Your task to perform on an android device: turn off improve location accuracy Image 0: 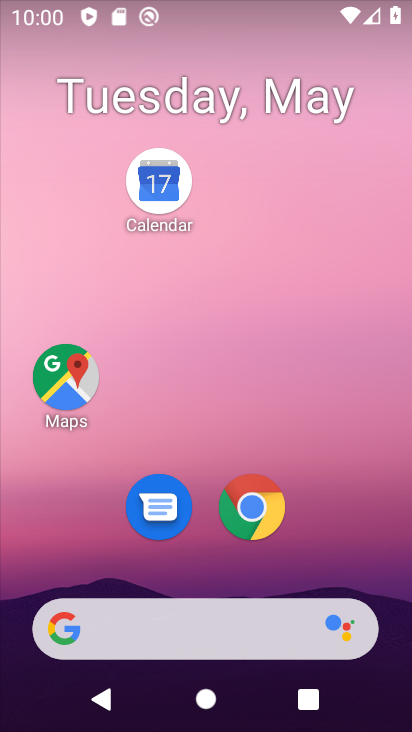
Step 0: drag from (329, 554) to (333, 92)
Your task to perform on an android device: turn off improve location accuracy Image 1: 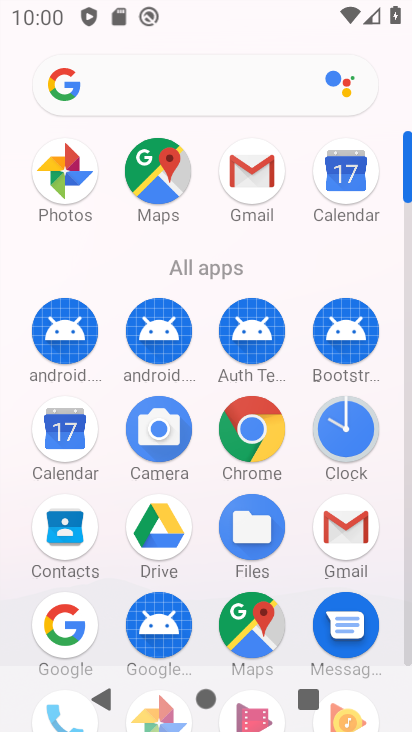
Step 1: drag from (184, 559) to (214, 184)
Your task to perform on an android device: turn off improve location accuracy Image 2: 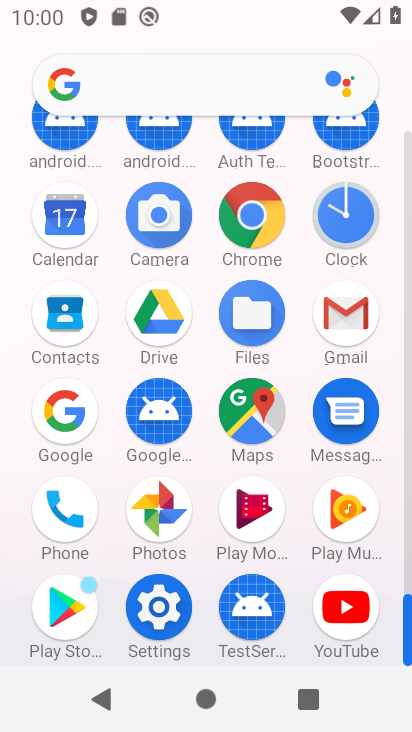
Step 2: drag from (153, 600) to (70, 217)
Your task to perform on an android device: turn off improve location accuracy Image 3: 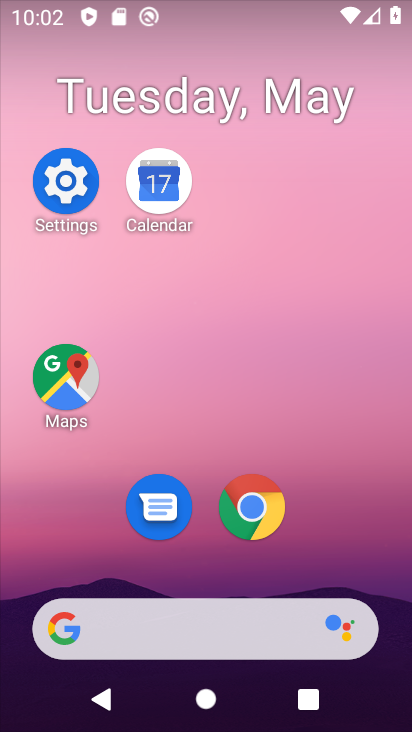
Step 3: click (76, 220)
Your task to perform on an android device: turn off improve location accuracy Image 4: 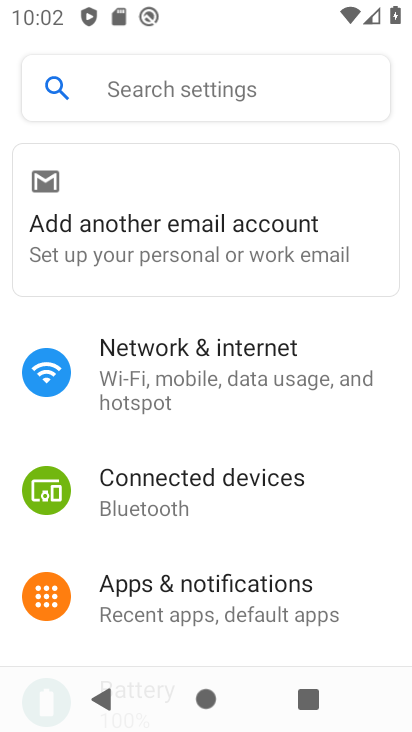
Step 4: drag from (306, 600) to (315, 166)
Your task to perform on an android device: turn off improve location accuracy Image 5: 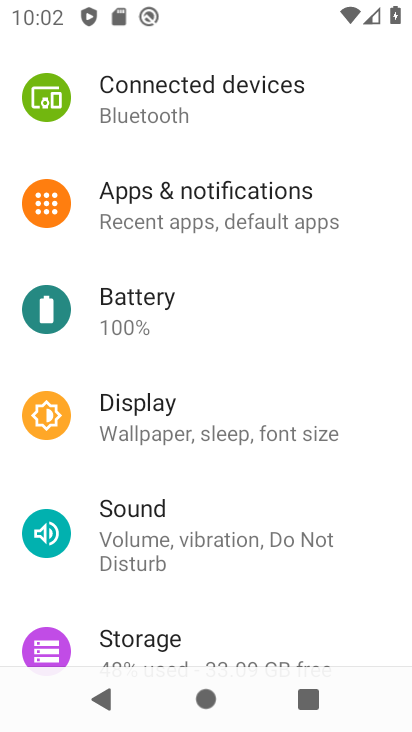
Step 5: drag from (236, 553) to (312, 175)
Your task to perform on an android device: turn off improve location accuracy Image 6: 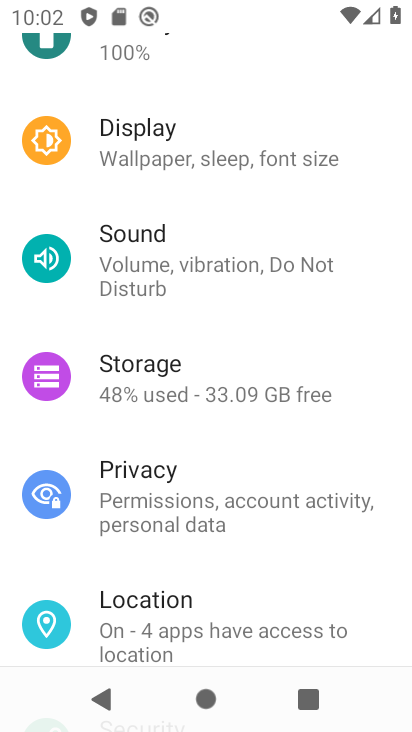
Step 6: drag from (262, 605) to (297, 234)
Your task to perform on an android device: turn off improve location accuracy Image 7: 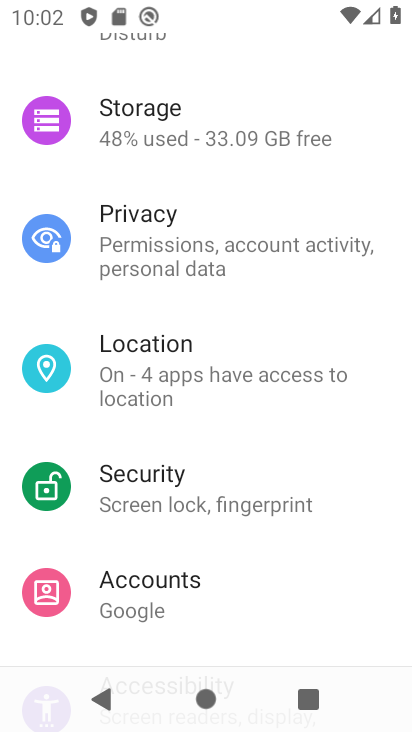
Step 7: click (252, 367)
Your task to perform on an android device: turn off improve location accuracy Image 8: 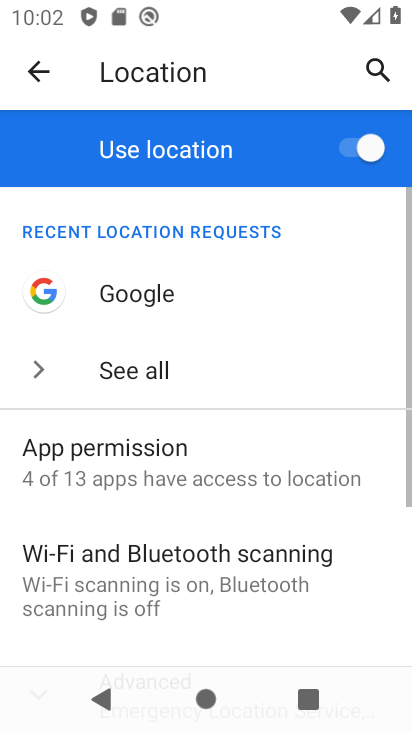
Step 8: drag from (243, 554) to (280, 226)
Your task to perform on an android device: turn off improve location accuracy Image 9: 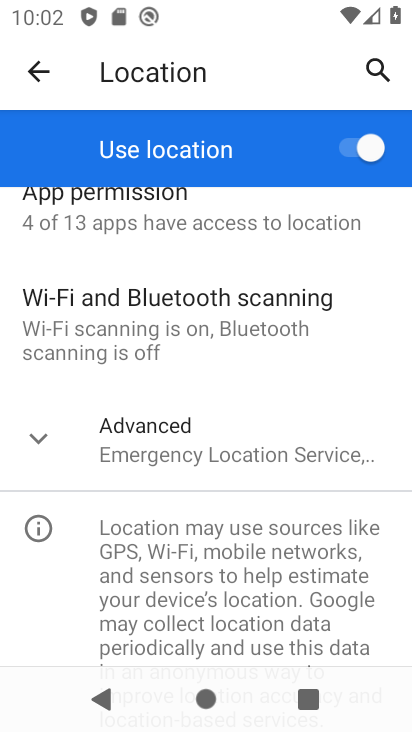
Step 9: click (210, 490)
Your task to perform on an android device: turn off improve location accuracy Image 10: 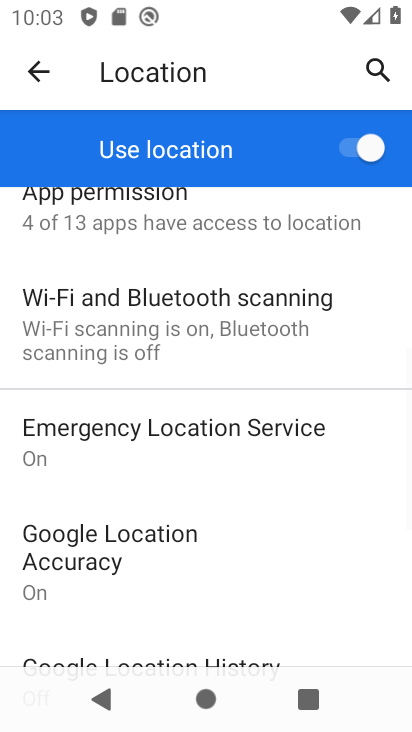
Step 10: click (227, 556)
Your task to perform on an android device: turn off improve location accuracy Image 11: 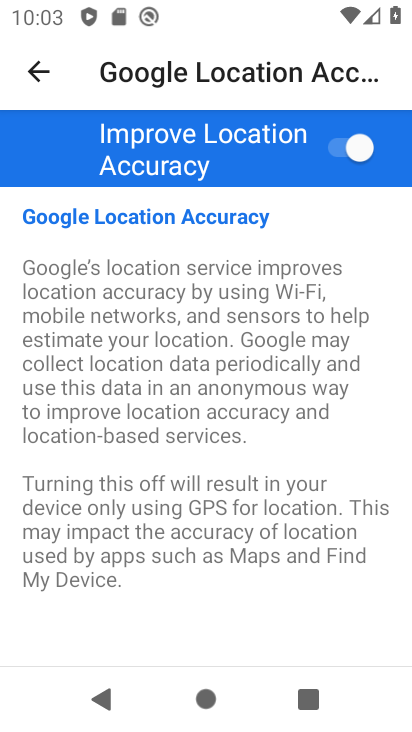
Step 11: click (360, 146)
Your task to perform on an android device: turn off improve location accuracy Image 12: 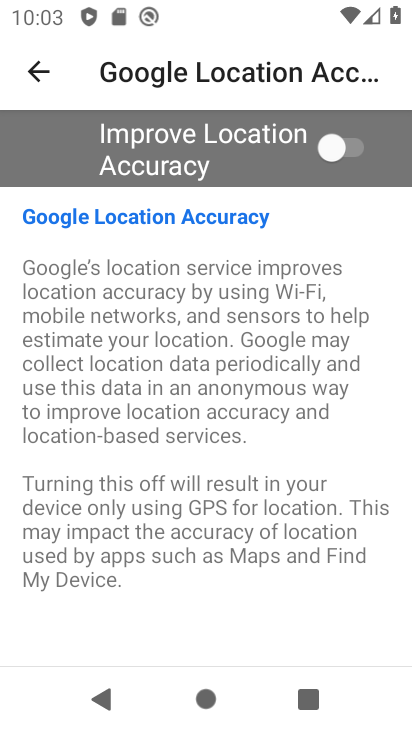
Step 12: task complete